Your task to perform on an android device: Go to Reddit.com Image 0: 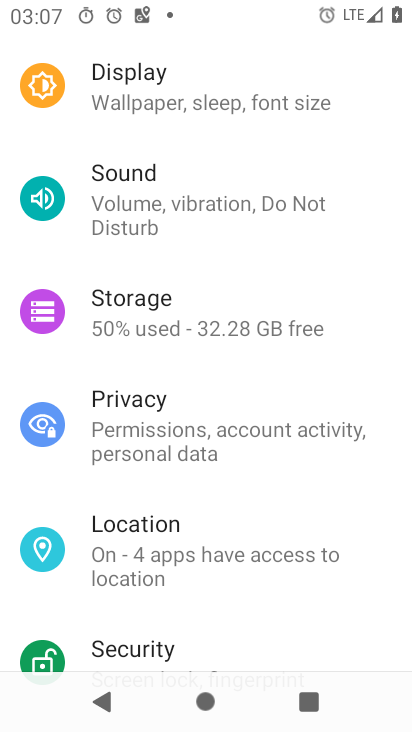
Step 0: press home button
Your task to perform on an android device: Go to Reddit.com Image 1: 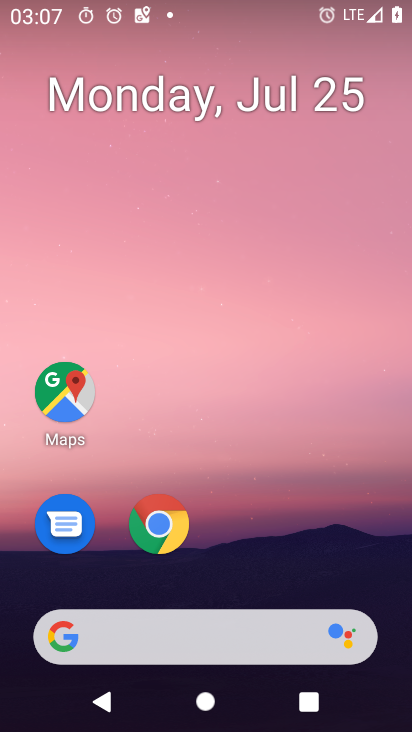
Step 1: click (50, 642)
Your task to perform on an android device: Go to Reddit.com Image 2: 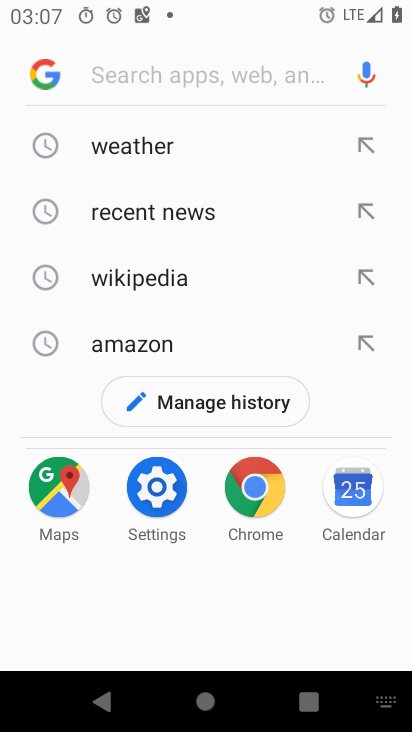
Step 2: type "Reddit.com"
Your task to perform on an android device: Go to Reddit.com Image 3: 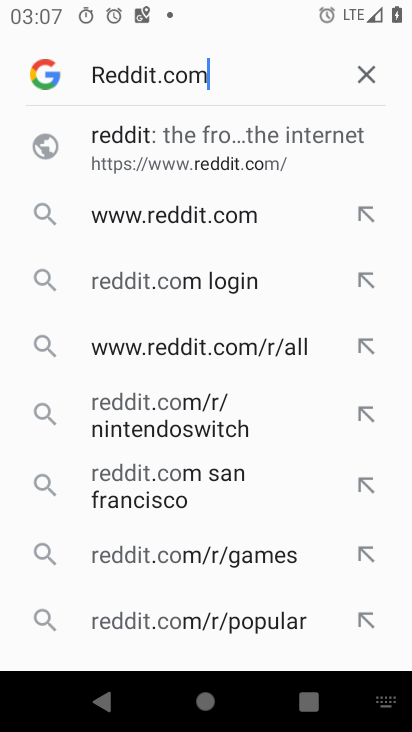
Step 3: press enter
Your task to perform on an android device: Go to Reddit.com Image 4: 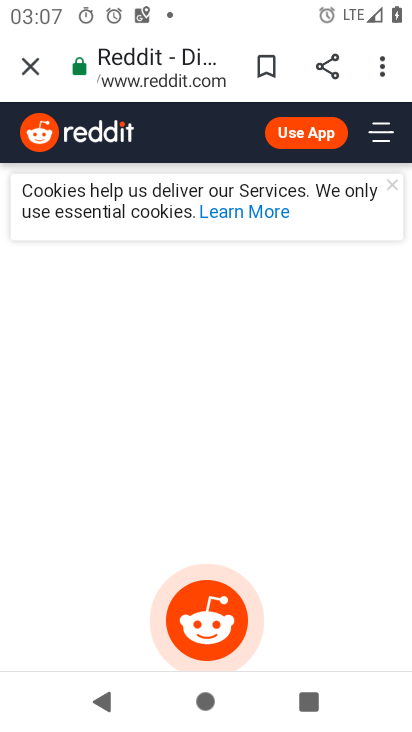
Step 4: task complete